Your task to perform on an android device: Open the Play Movies app and select the watchlist tab. Image 0: 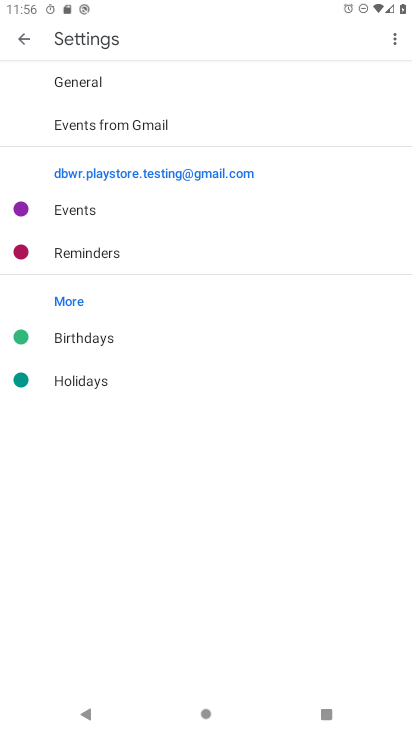
Step 0: press home button
Your task to perform on an android device: Open the Play Movies app and select the watchlist tab. Image 1: 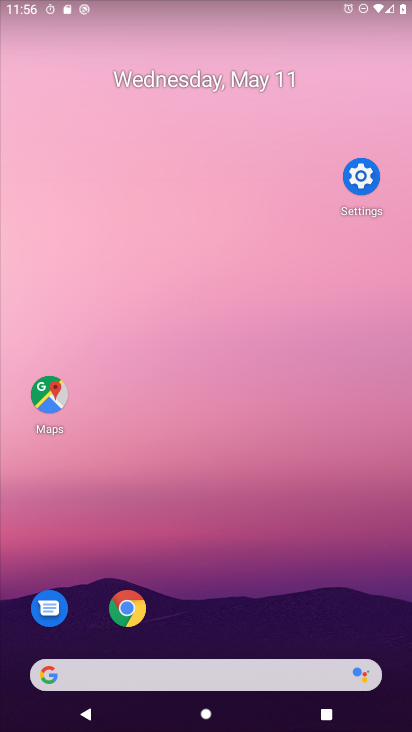
Step 1: drag from (272, 630) to (122, 144)
Your task to perform on an android device: Open the Play Movies app and select the watchlist tab. Image 2: 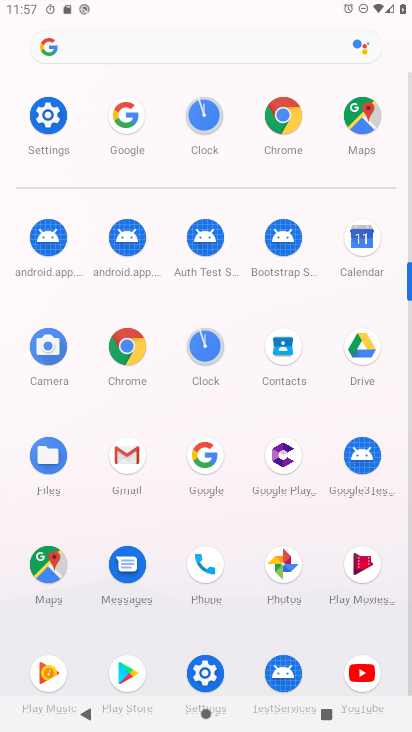
Step 2: click (368, 558)
Your task to perform on an android device: Open the Play Movies app and select the watchlist tab. Image 3: 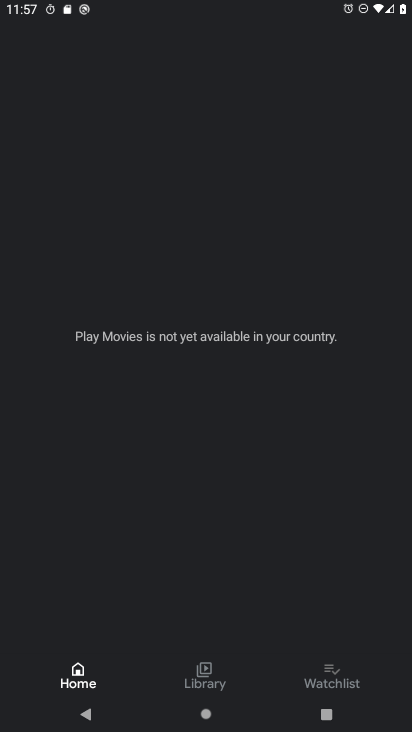
Step 3: click (337, 669)
Your task to perform on an android device: Open the Play Movies app and select the watchlist tab. Image 4: 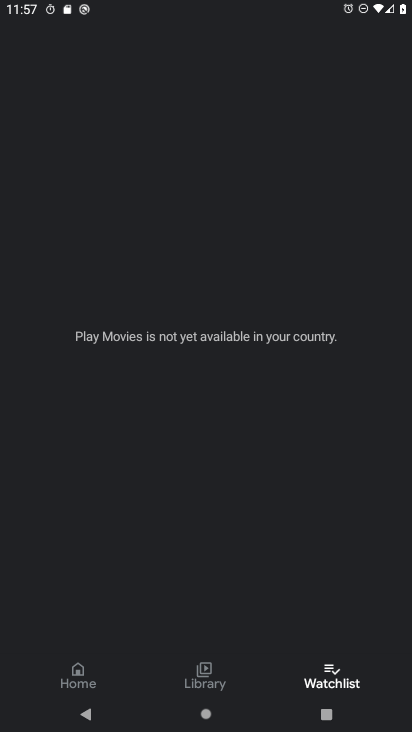
Step 4: task complete